Your task to perform on an android device: Open CNN.com Image 0: 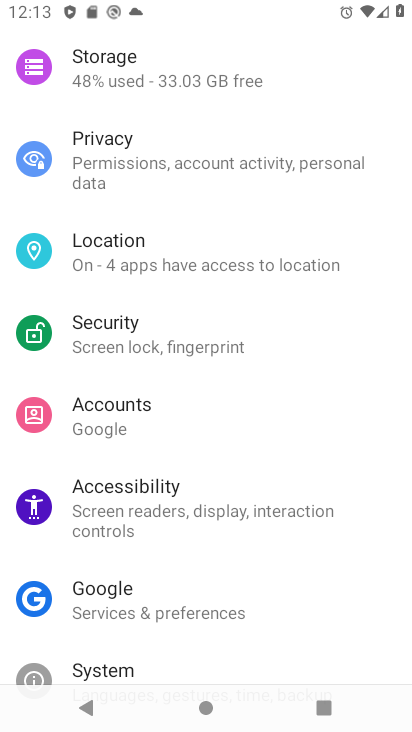
Step 0: press home button
Your task to perform on an android device: Open CNN.com Image 1: 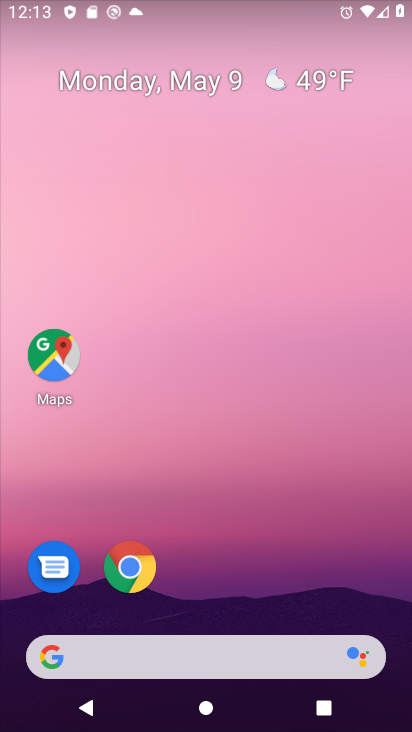
Step 1: click (130, 565)
Your task to perform on an android device: Open CNN.com Image 2: 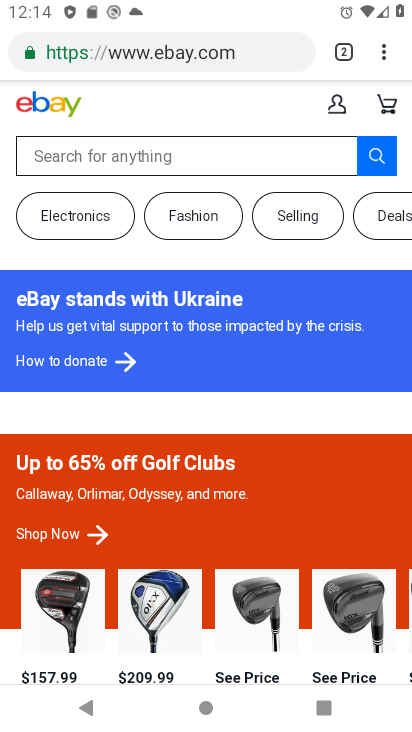
Step 2: click (384, 59)
Your task to perform on an android device: Open CNN.com Image 3: 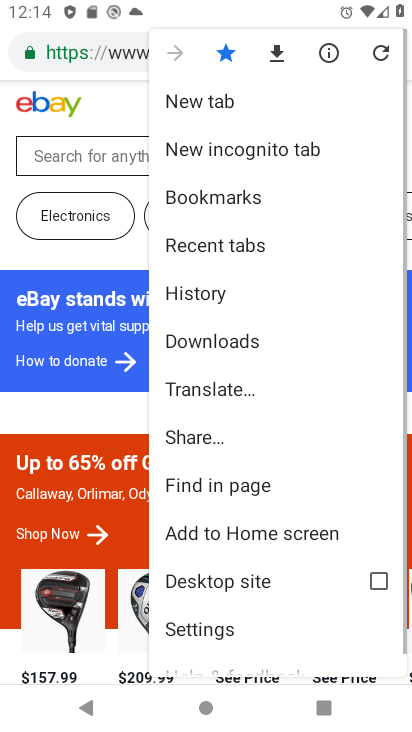
Step 3: click (218, 100)
Your task to perform on an android device: Open CNN.com Image 4: 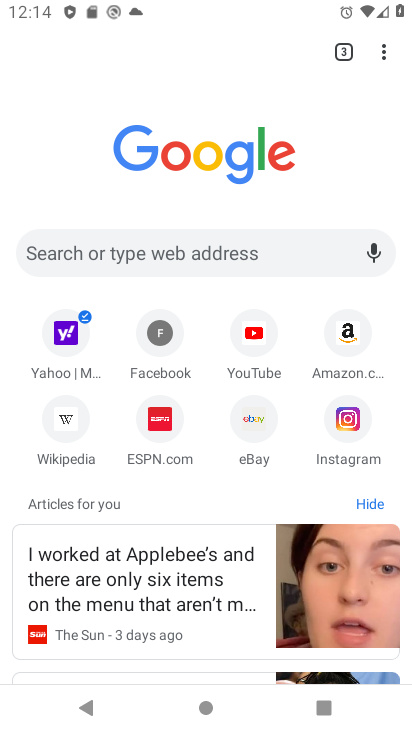
Step 4: click (225, 250)
Your task to perform on an android device: Open CNN.com Image 5: 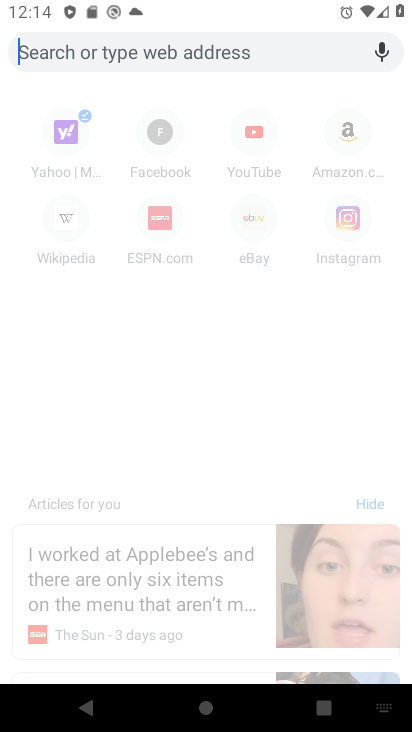
Step 5: type "CNN.com"
Your task to perform on an android device: Open CNN.com Image 6: 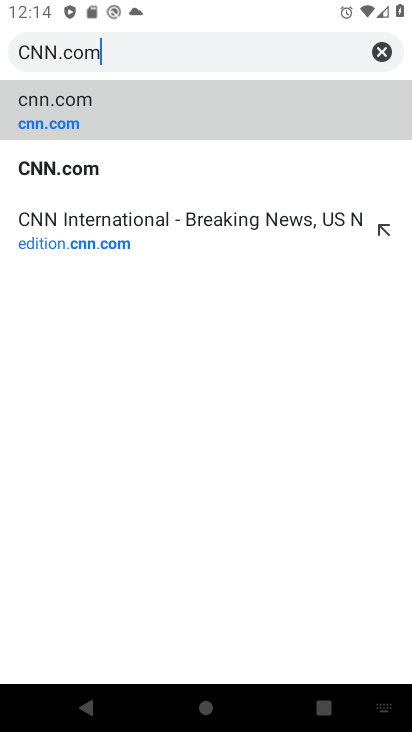
Step 6: click (59, 100)
Your task to perform on an android device: Open CNN.com Image 7: 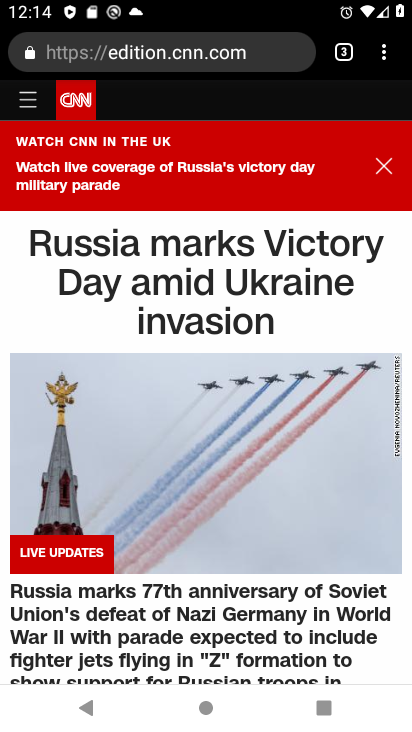
Step 7: task complete